Your task to perform on an android device: change the clock display to analog Image 0: 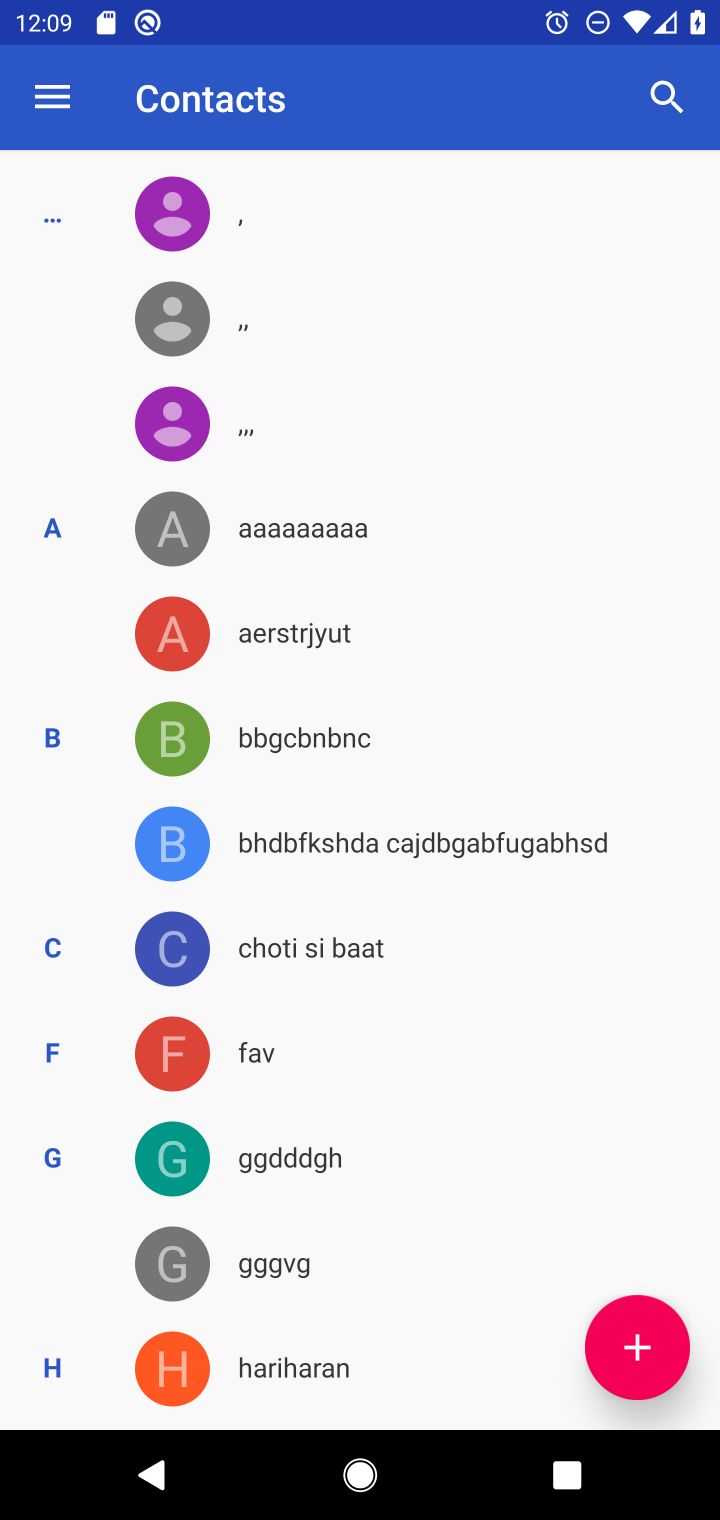
Step 0: press home button
Your task to perform on an android device: change the clock display to analog Image 1: 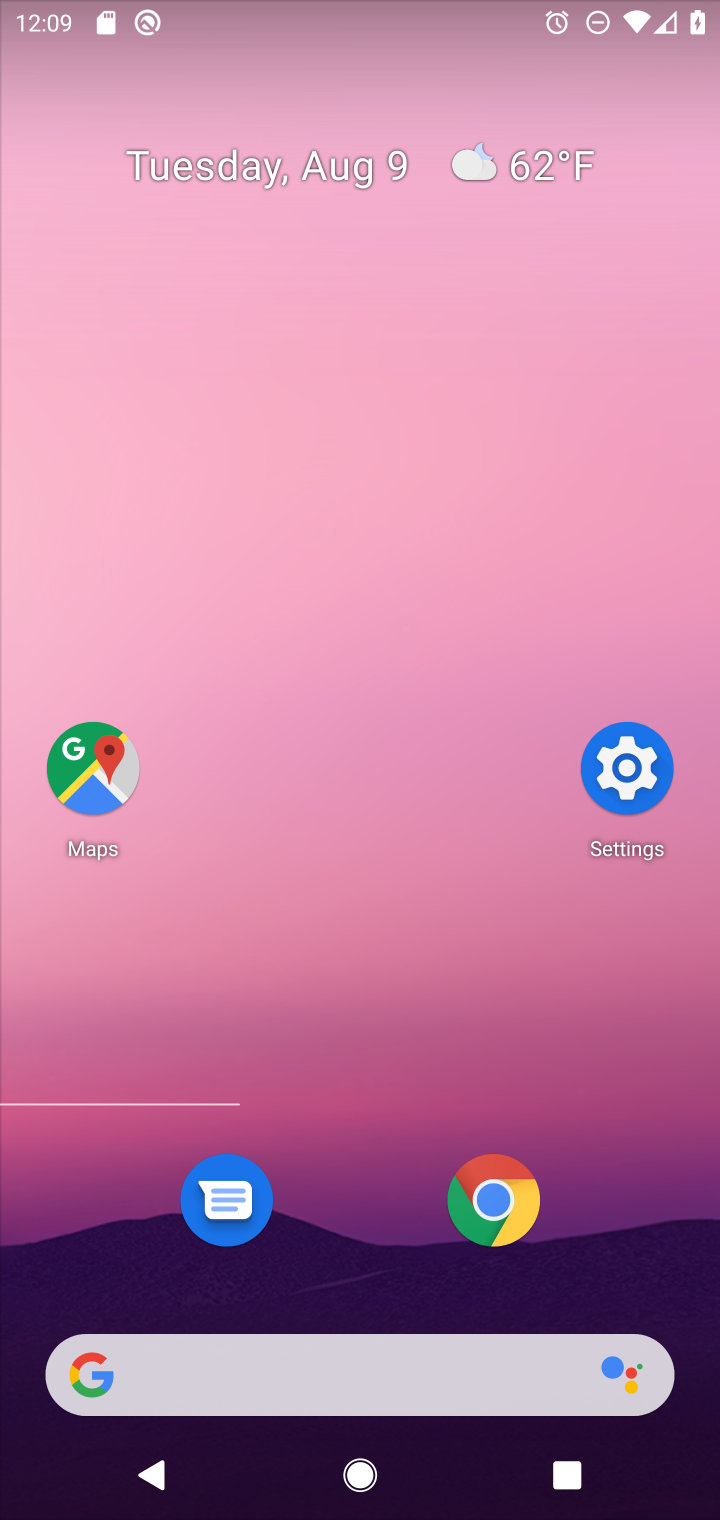
Step 1: drag from (401, 1297) to (572, 184)
Your task to perform on an android device: change the clock display to analog Image 2: 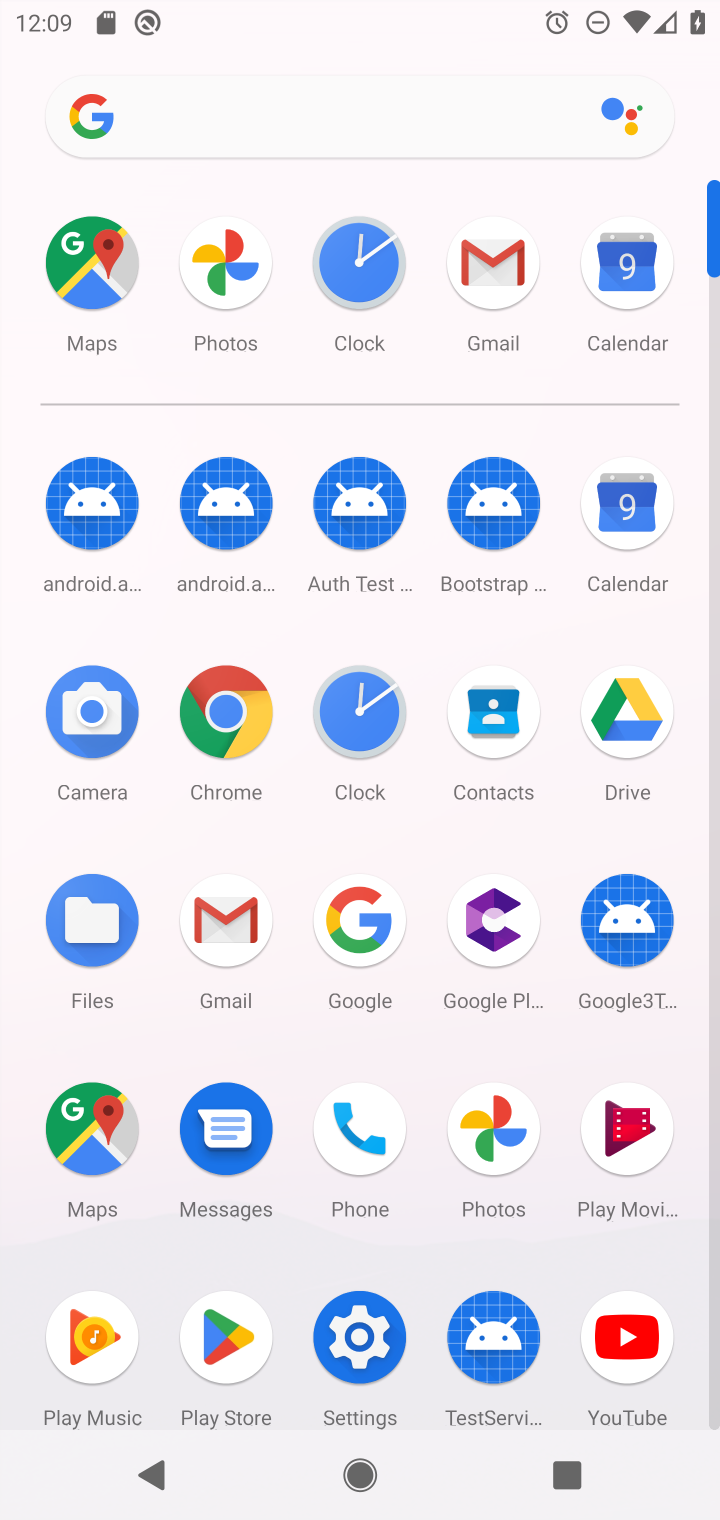
Step 2: click (324, 721)
Your task to perform on an android device: change the clock display to analog Image 3: 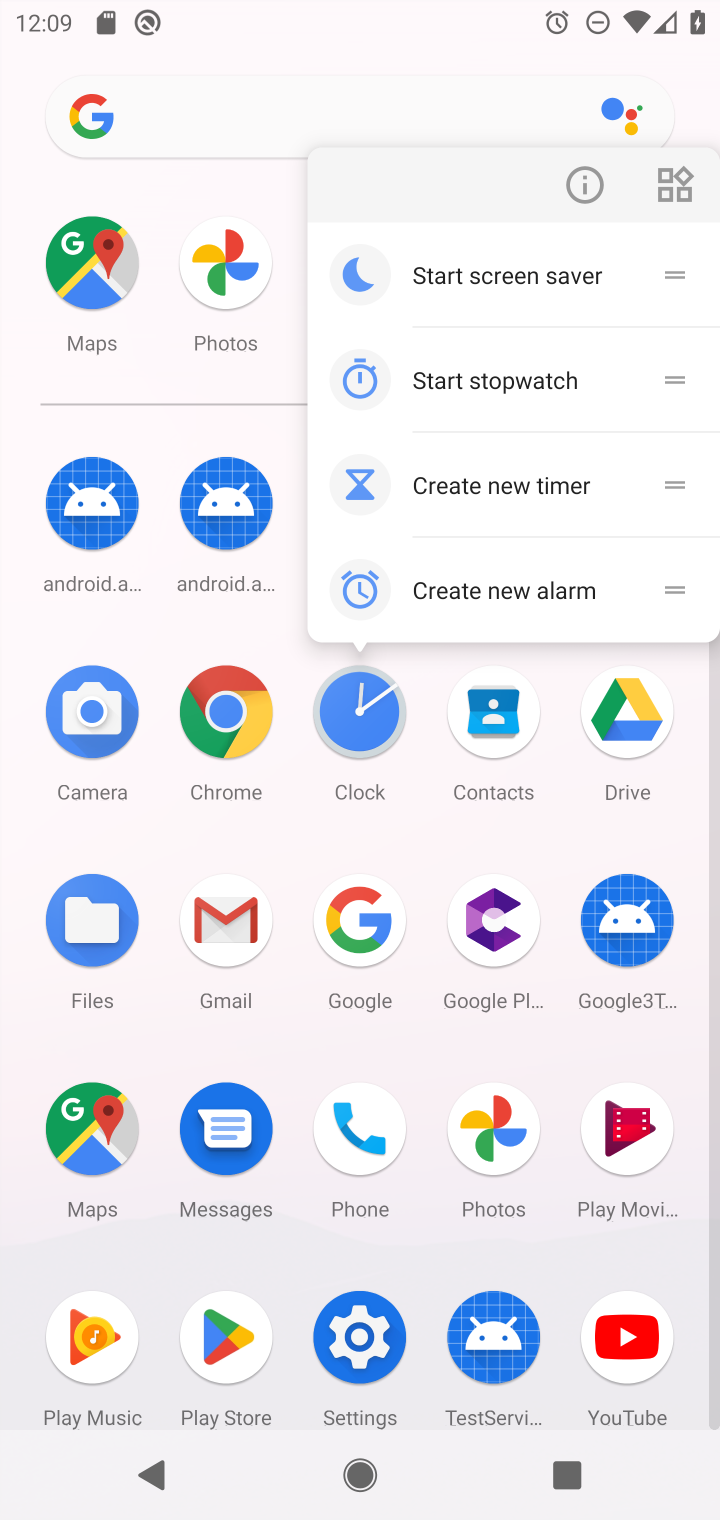
Step 3: click (340, 728)
Your task to perform on an android device: change the clock display to analog Image 4: 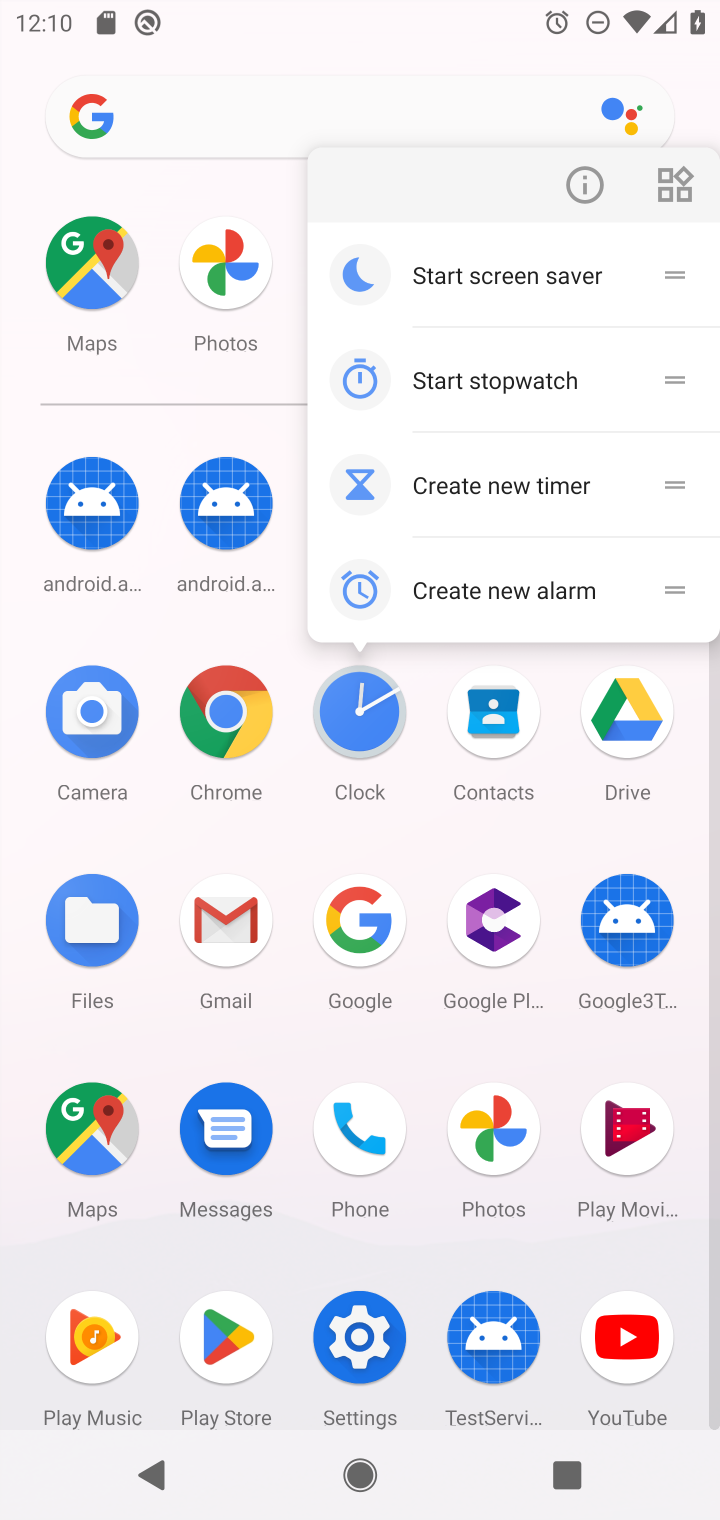
Step 4: click (371, 705)
Your task to perform on an android device: change the clock display to analog Image 5: 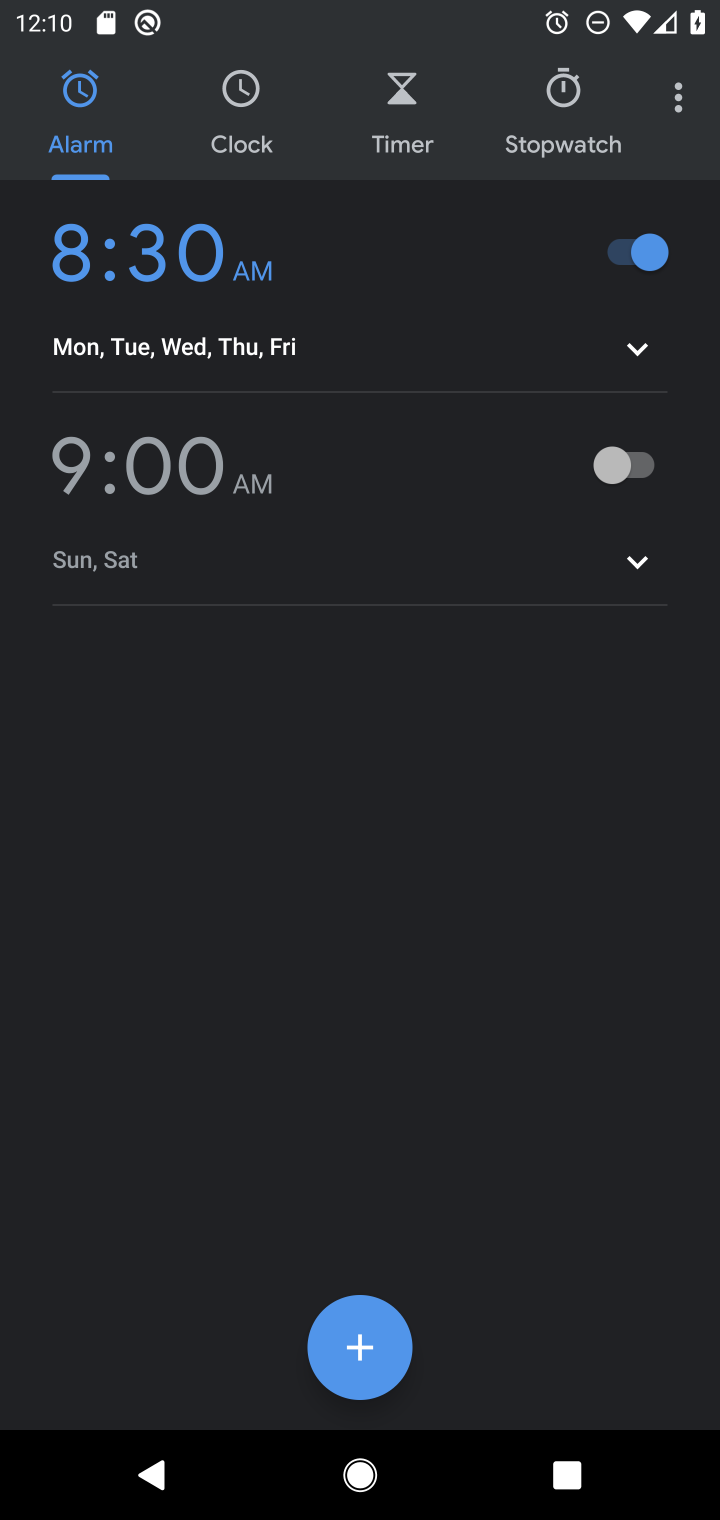
Step 5: click (668, 93)
Your task to perform on an android device: change the clock display to analog Image 6: 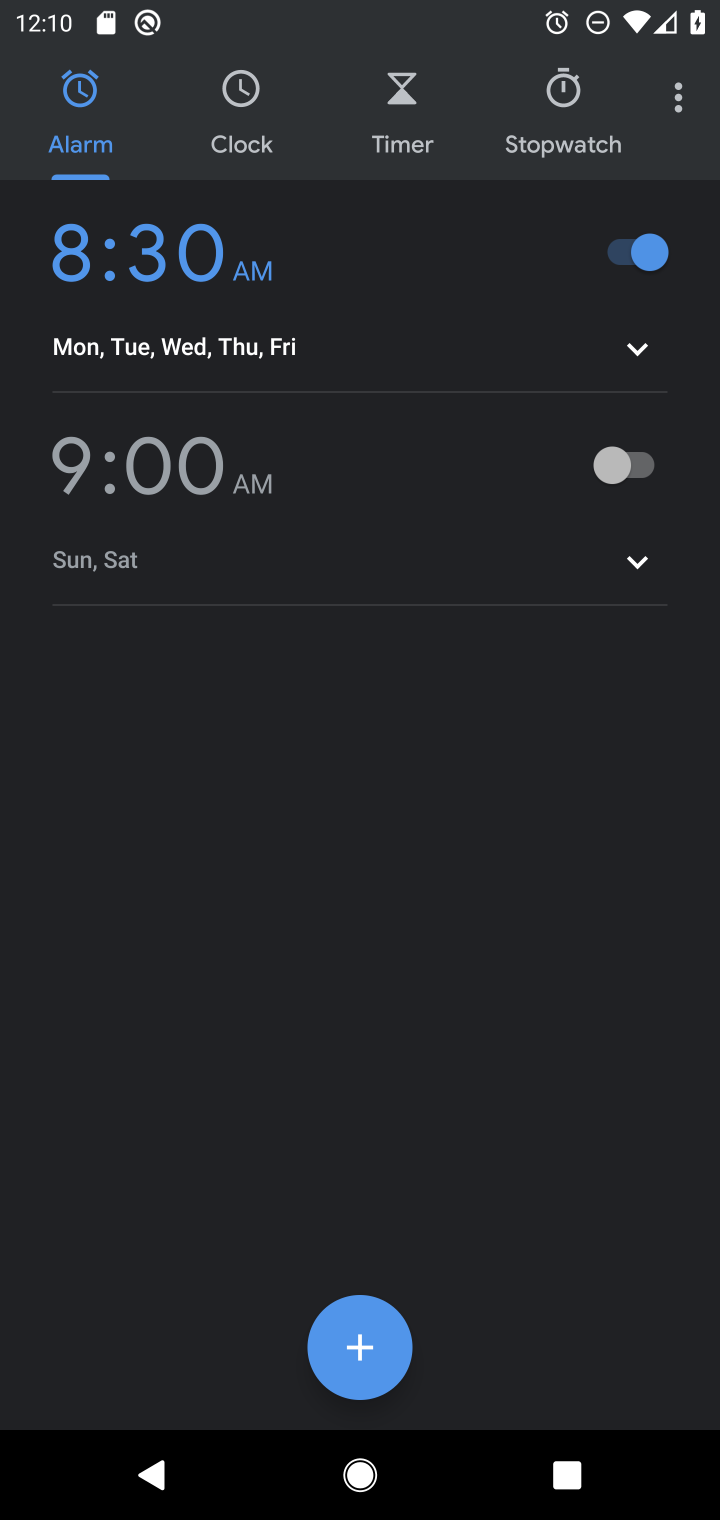
Step 6: click (685, 117)
Your task to perform on an android device: change the clock display to analog Image 7: 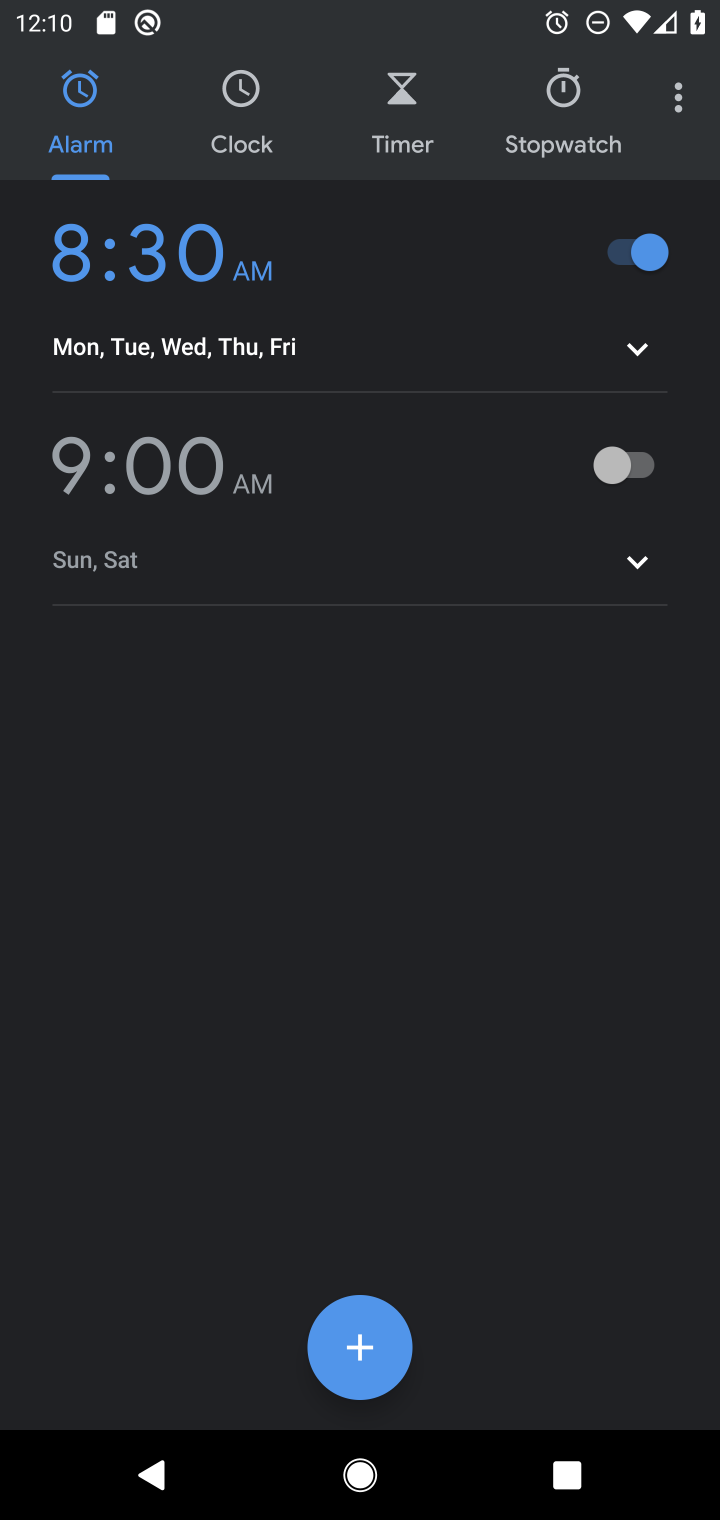
Step 7: click (674, 94)
Your task to perform on an android device: change the clock display to analog Image 8: 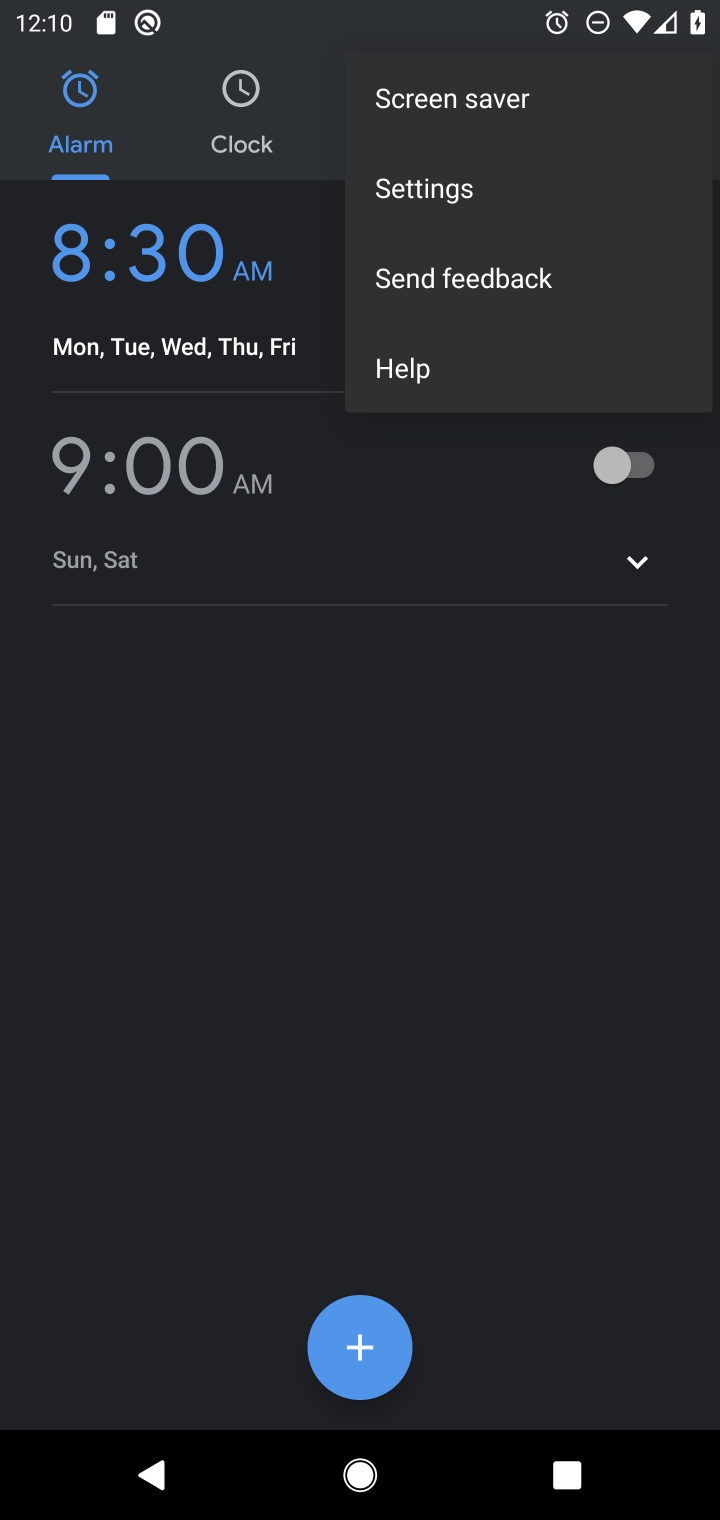
Step 8: click (448, 192)
Your task to perform on an android device: change the clock display to analog Image 9: 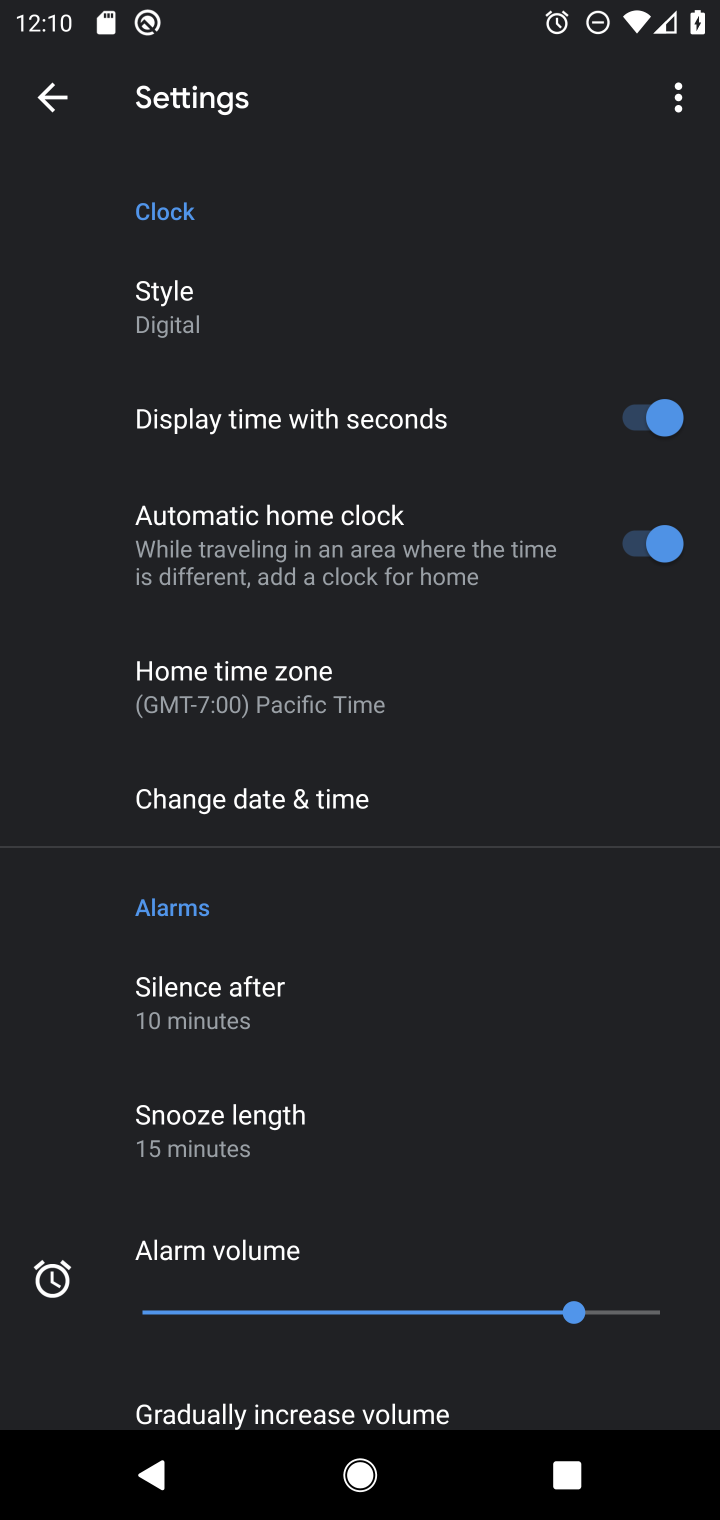
Step 9: click (186, 306)
Your task to perform on an android device: change the clock display to analog Image 10: 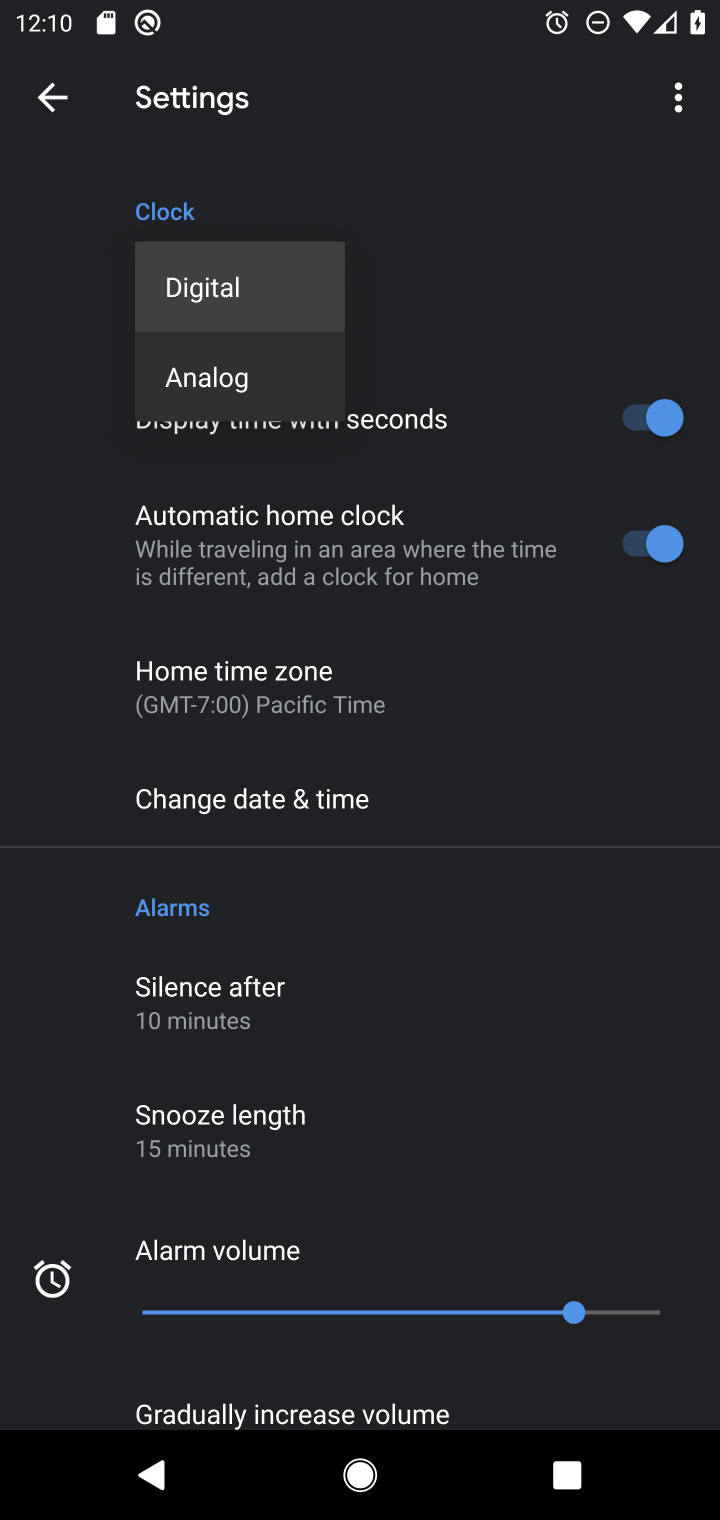
Step 10: click (254, 374)
Your task to perform on an android device: change the clock display to analog Image 11: 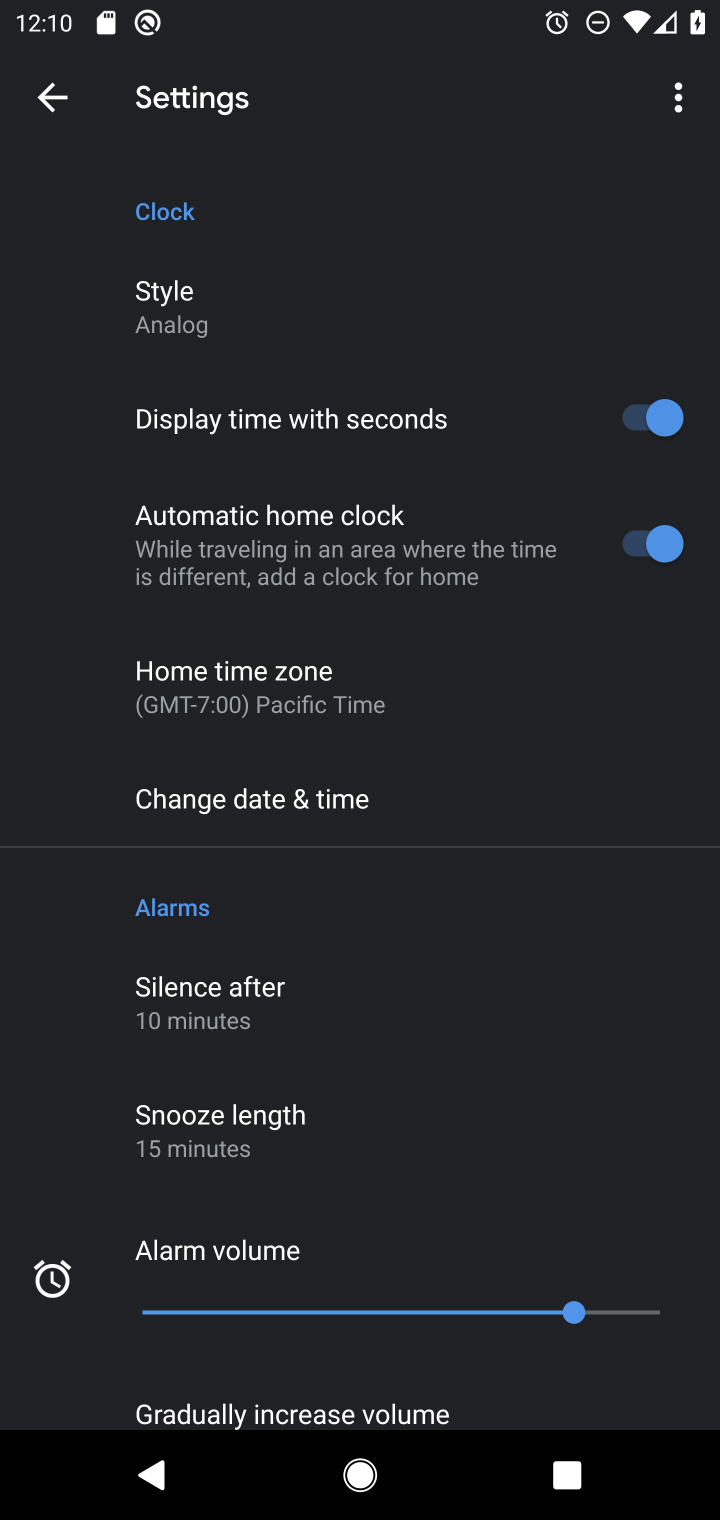
Step 11: task complete